Your task to perform on an android device: clear all cookies in the chrome app Image 0: 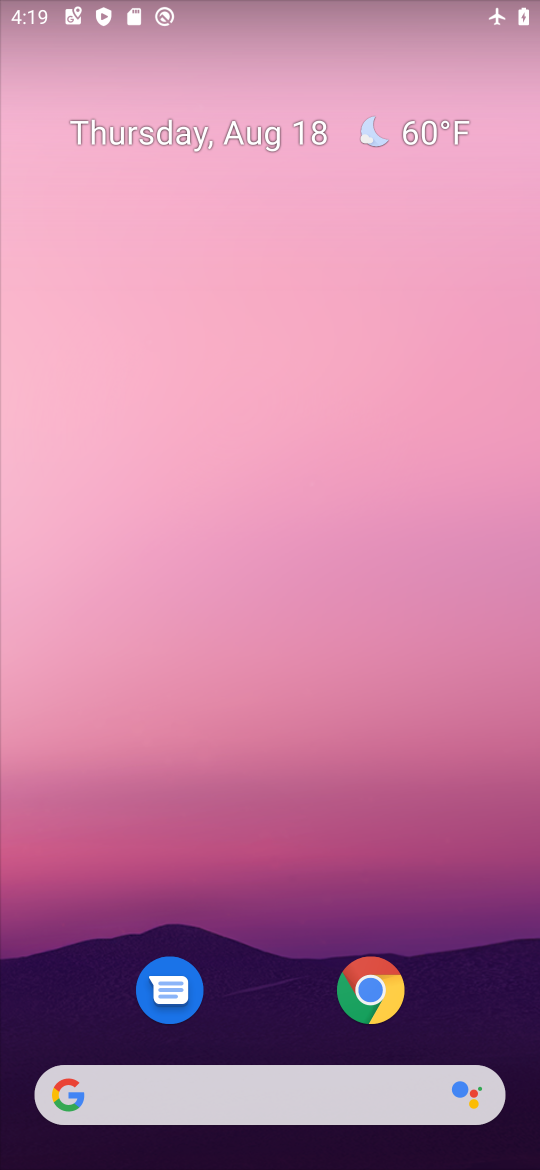
Step 0: drag from (283, 955) to (349, 198)
Your task to perform on an android device: clear all cookies in the chrome app Image 1: 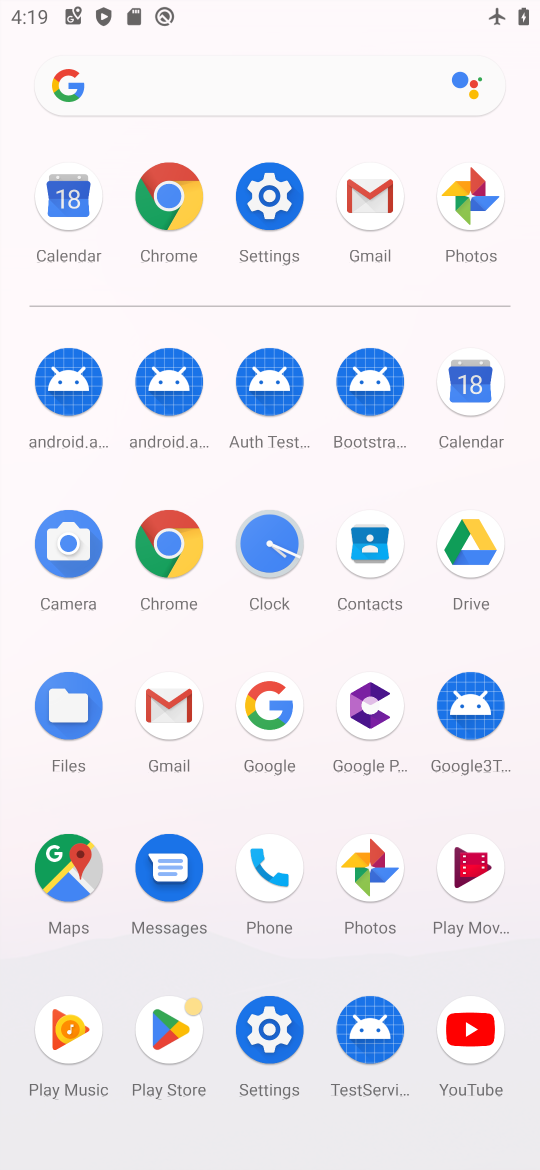
Step 1: click (163, 546)
Your task to perform on an android device: clear all cookies in the chrome app Image 2: 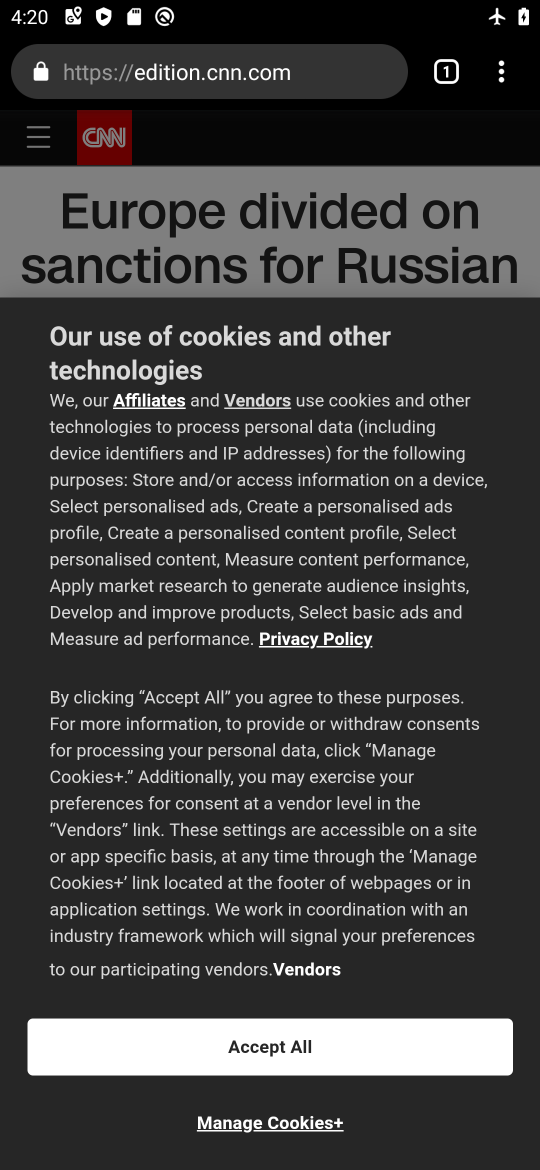
Step 2: drag from (514, 66) to (226, 403)
Your task to perform on an android device: clear all cookies in the chrome app Image 3: 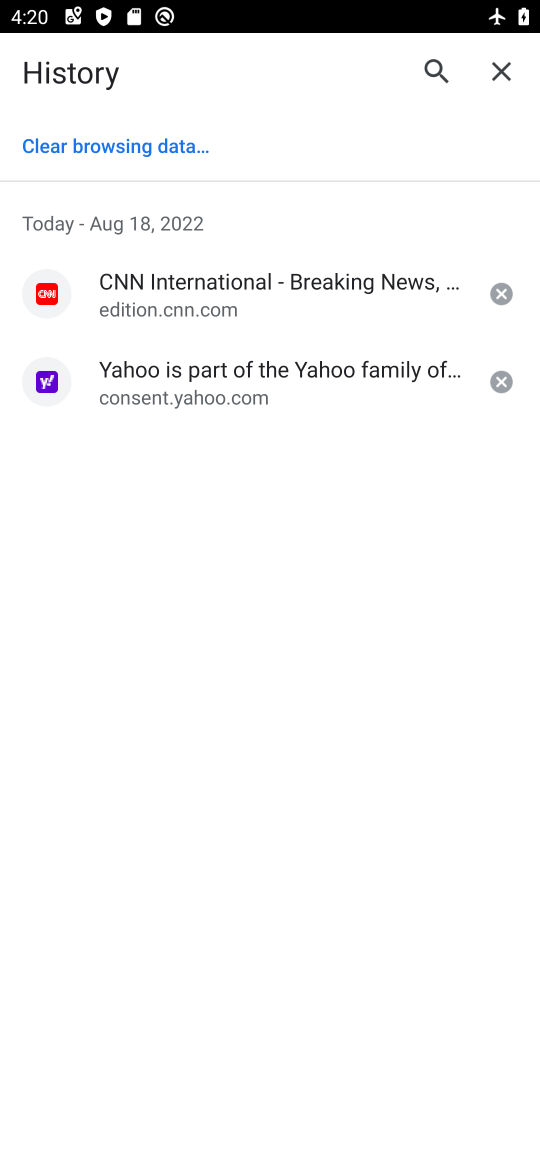
Step 3: click (139, 162)
Your task to perform on an android device: clear all cookies in the chrome app Image 4: 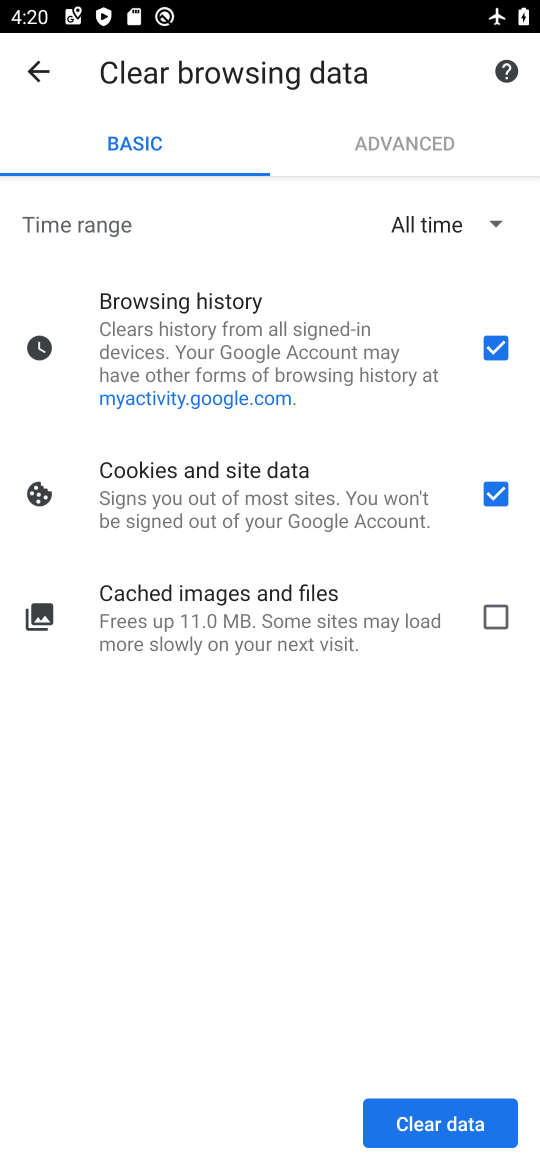
Step 4: click (452, 1126)
Your task to perform on an android device: clear all cookies in the chrome app Image 5: 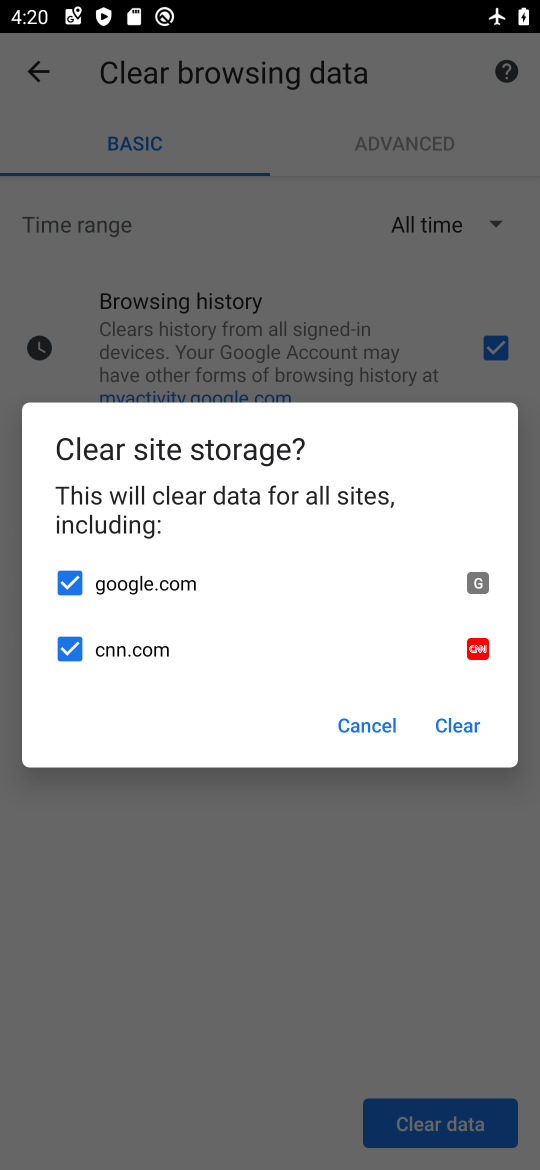
Step 5: click (457, 714)
Your task to perform on an android device: clear all cookies in the chrome app Image 6: 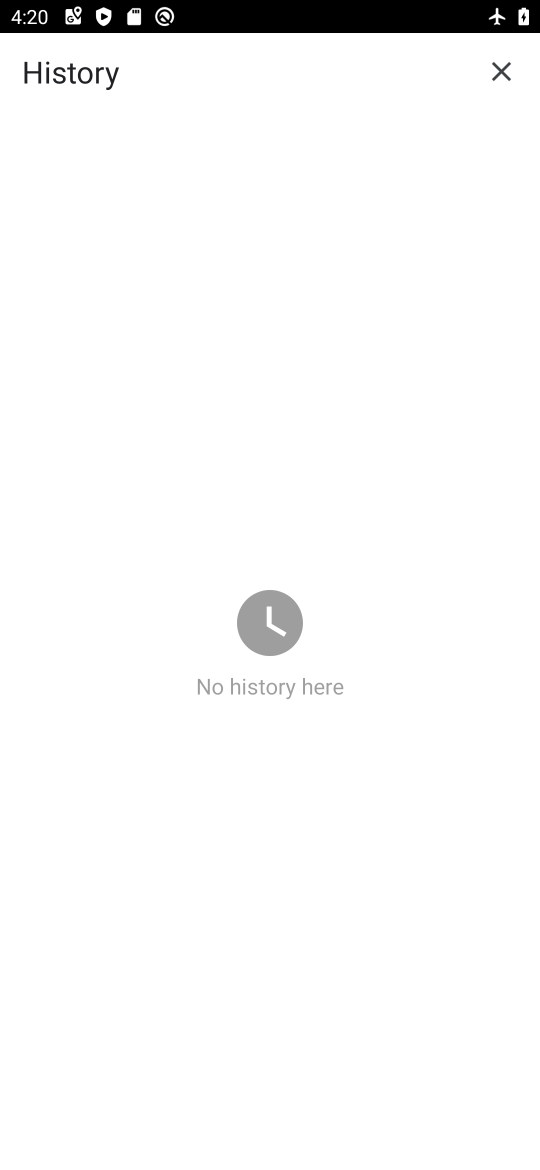
Step 6: task complete